Your task to perform on an android device: move a message to another label in the gmail app Image 0: 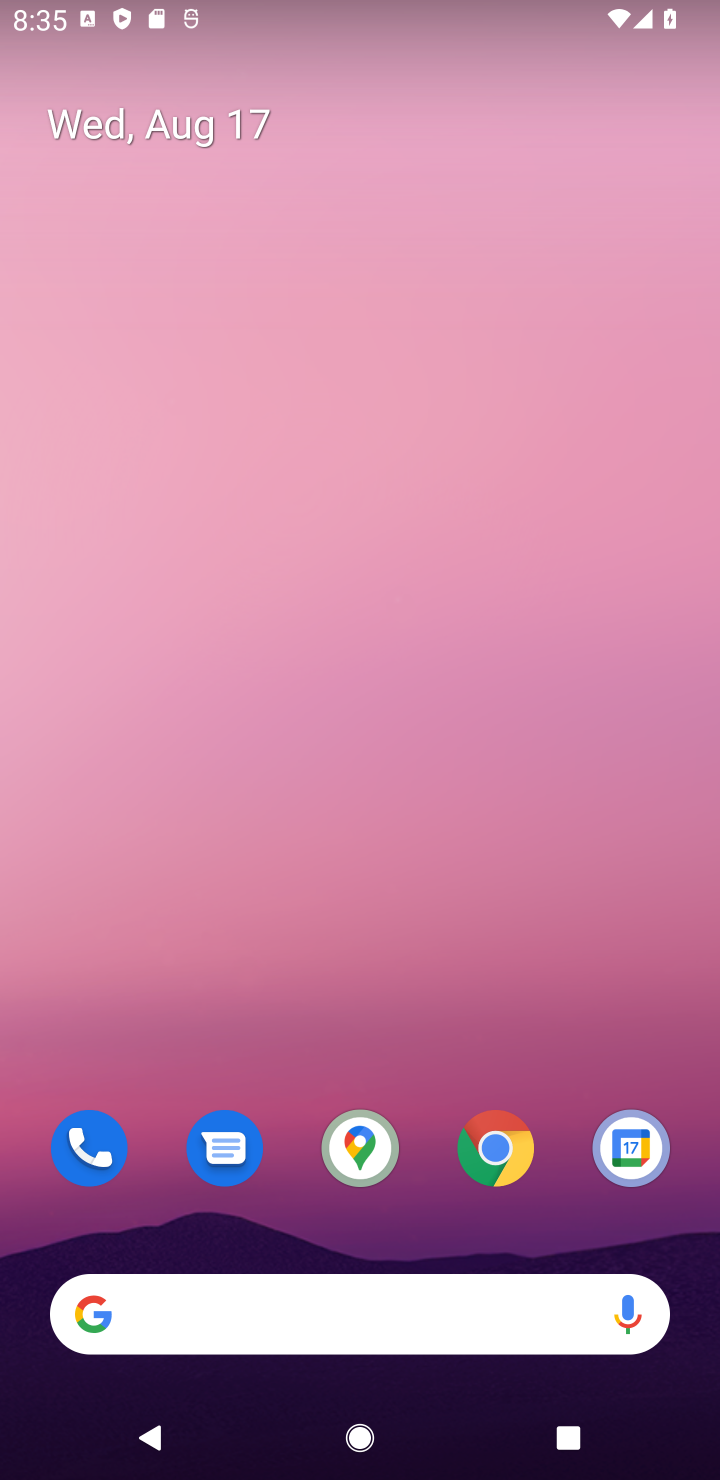
Step 0: drag from (571, 1171) to (540, 184)
Your task to perform on an android device: move a message to another label in the gmail app Image 1: 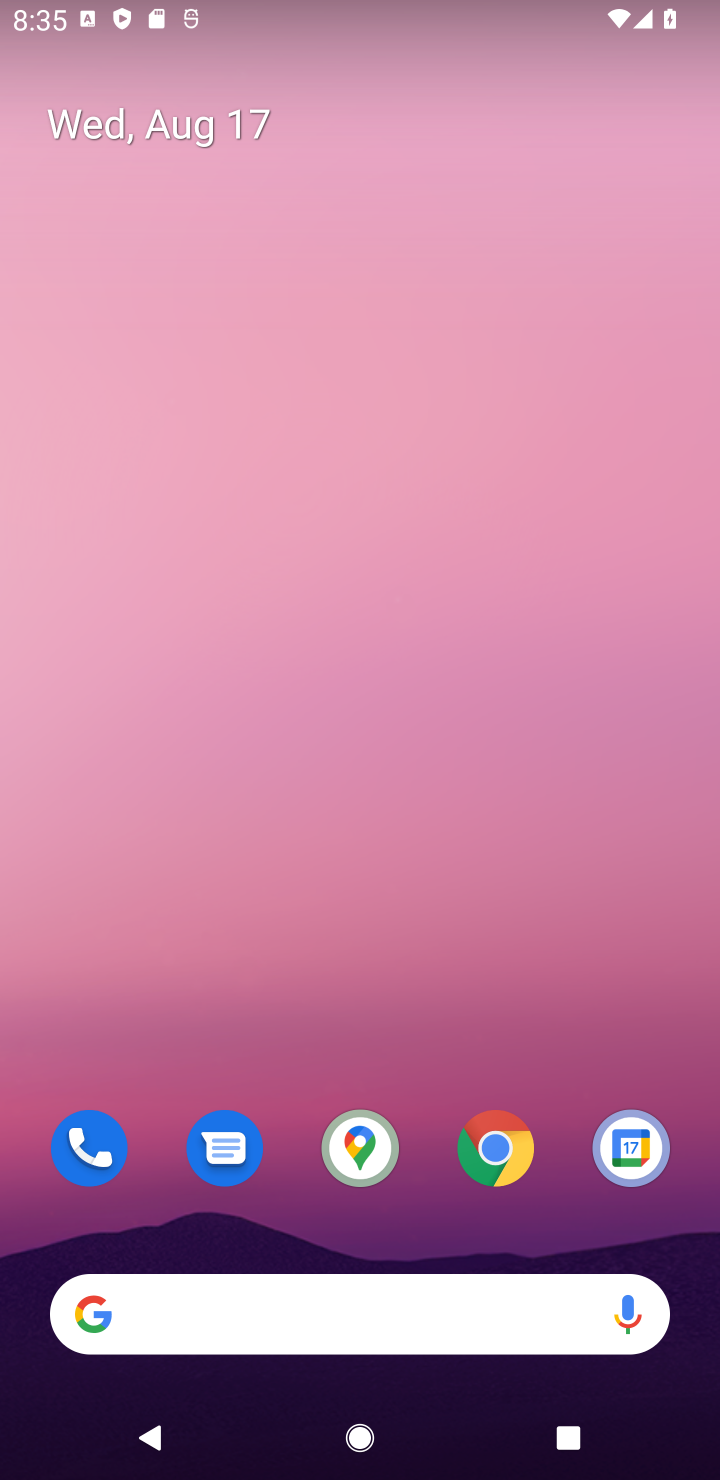
Step 1: drag from (571, 1220) to (530, 192)
Your task to perform on an android device: move a message to another label in the gmail app Image 2: 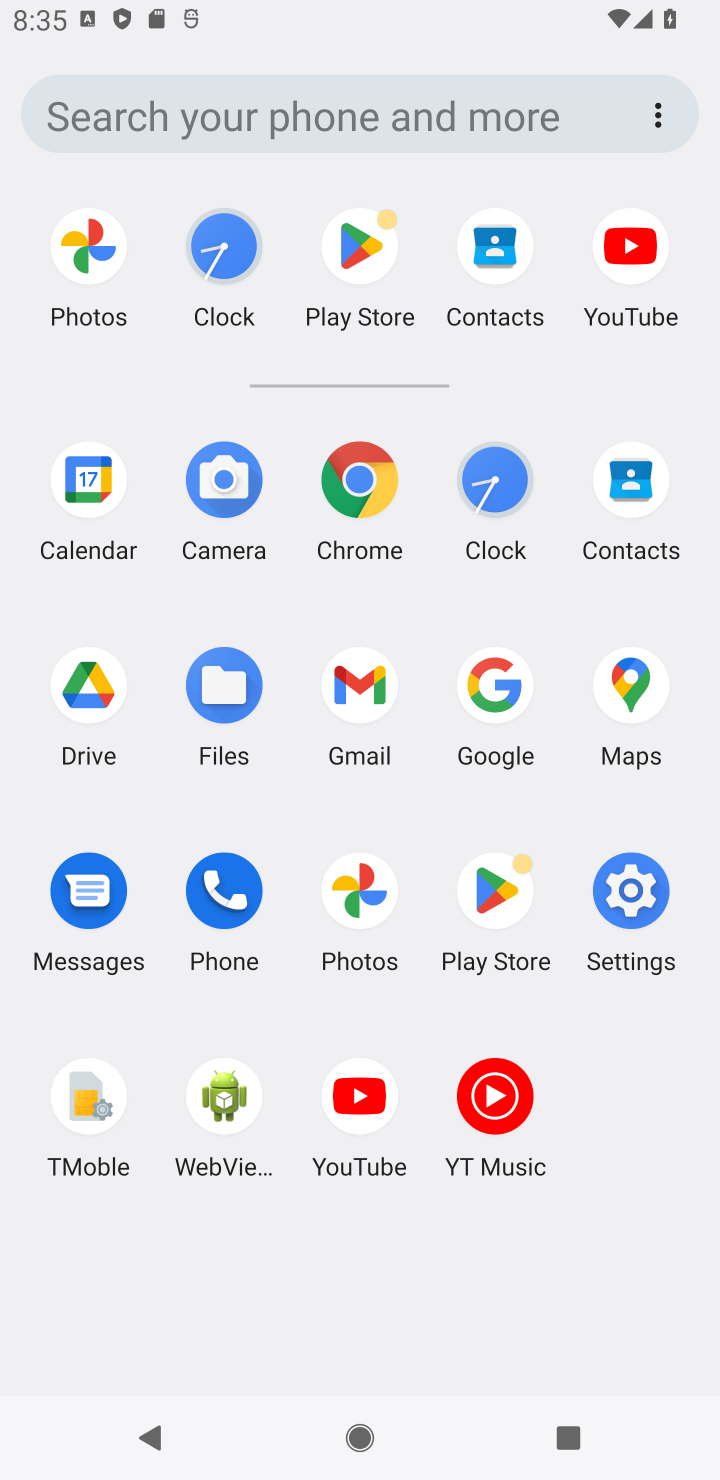
Step 2: click (360, 685)
Your task to perform on an android device: move a message to another label in the gmail app Image 3: 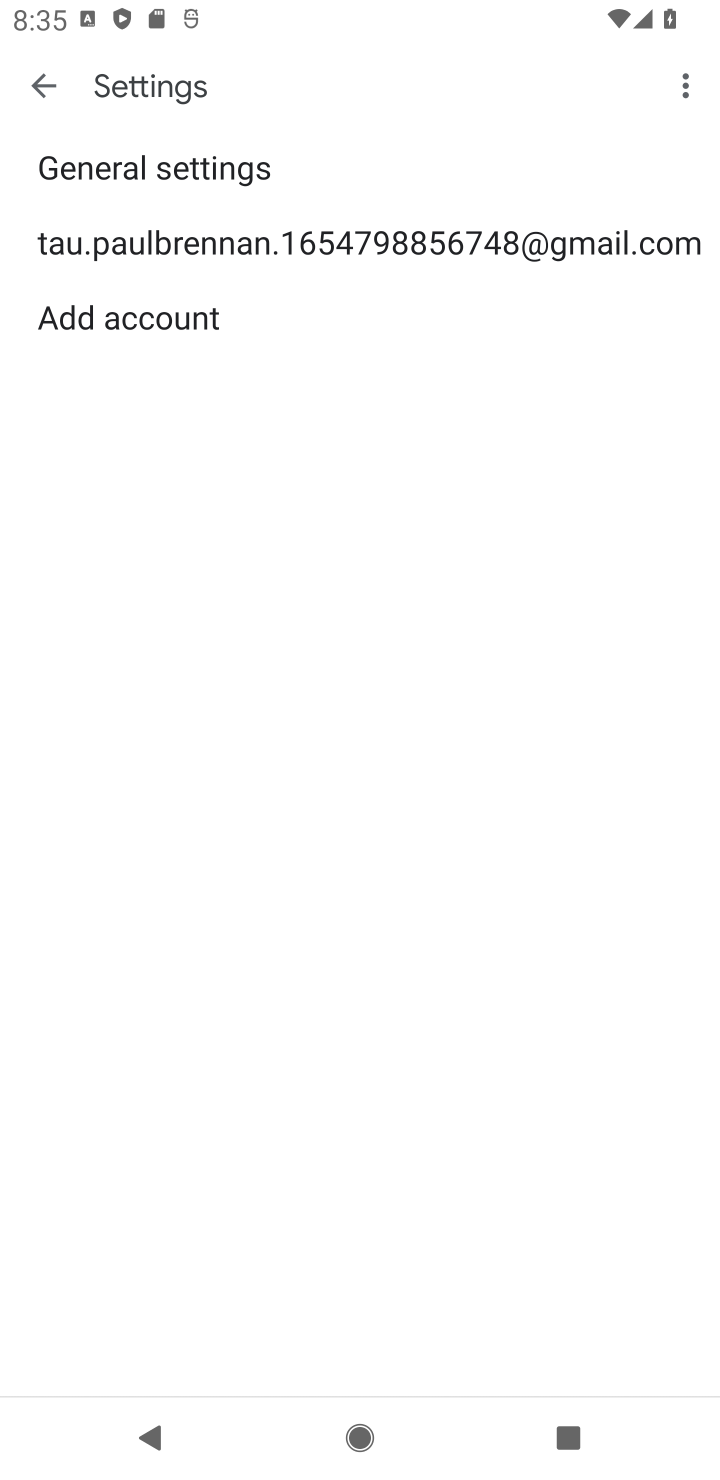
Step 3: press back button
Your task to perform on an android device: move a message to another label in the gmail app Image 4: 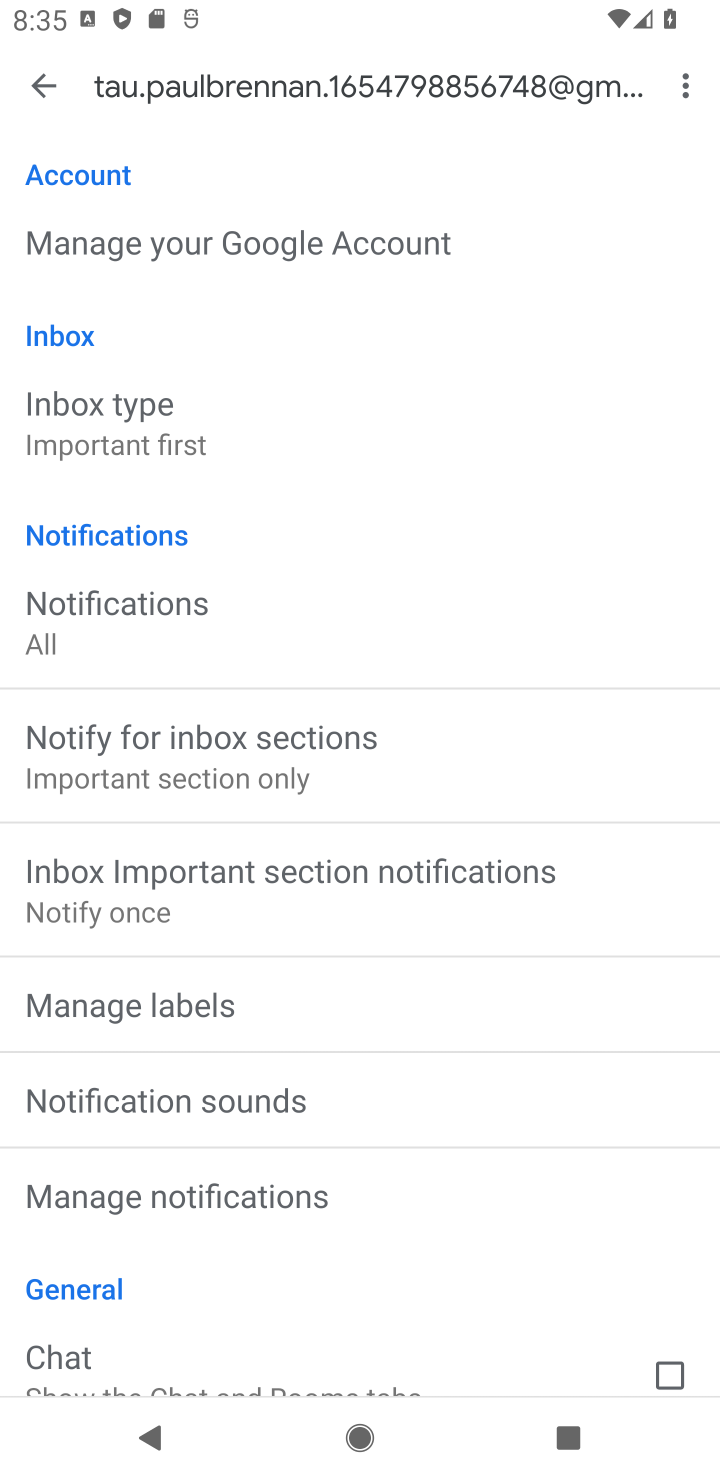
Step 4: press back button
Your task to perform on an android device: move a message to another label in the gmail app Image 5: 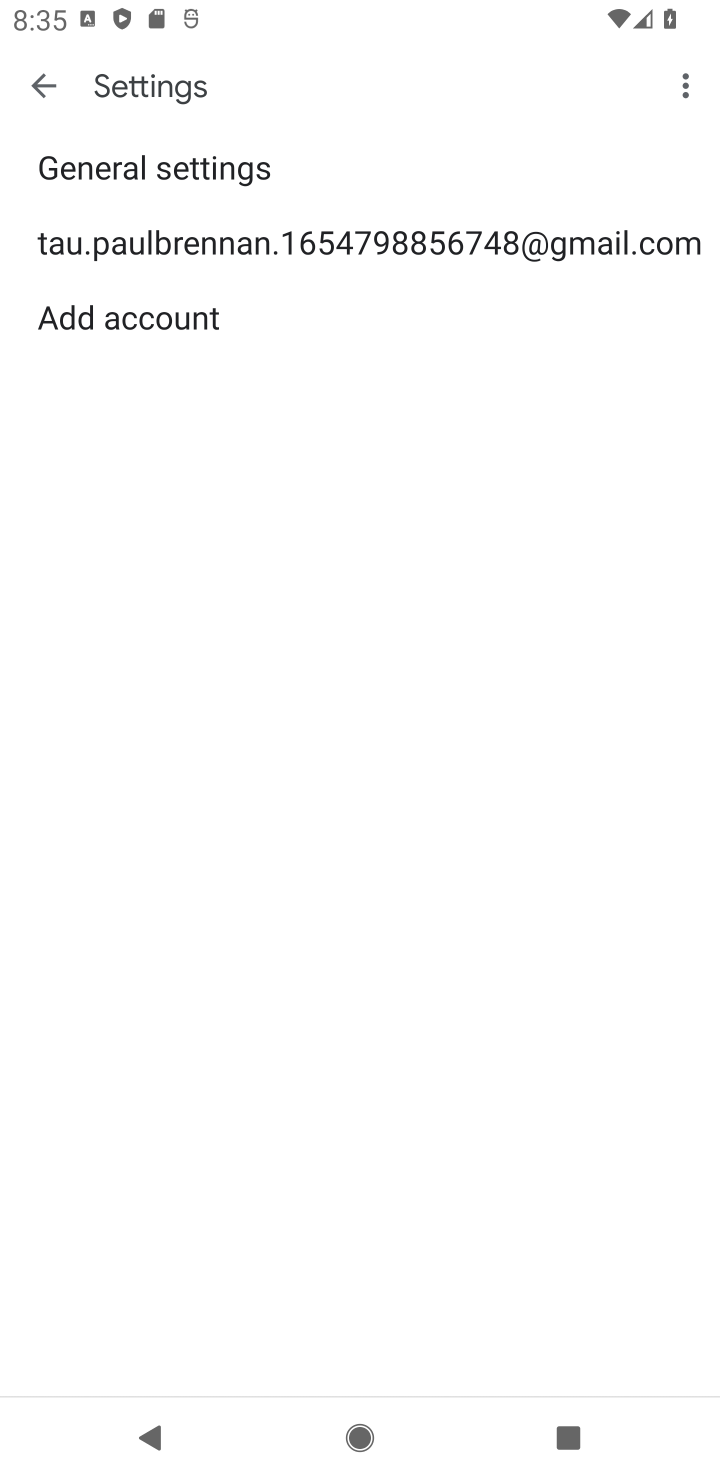
Step 5: press back button
Your task to perform on an android device: move a message to another label in the gmail app Image 6: 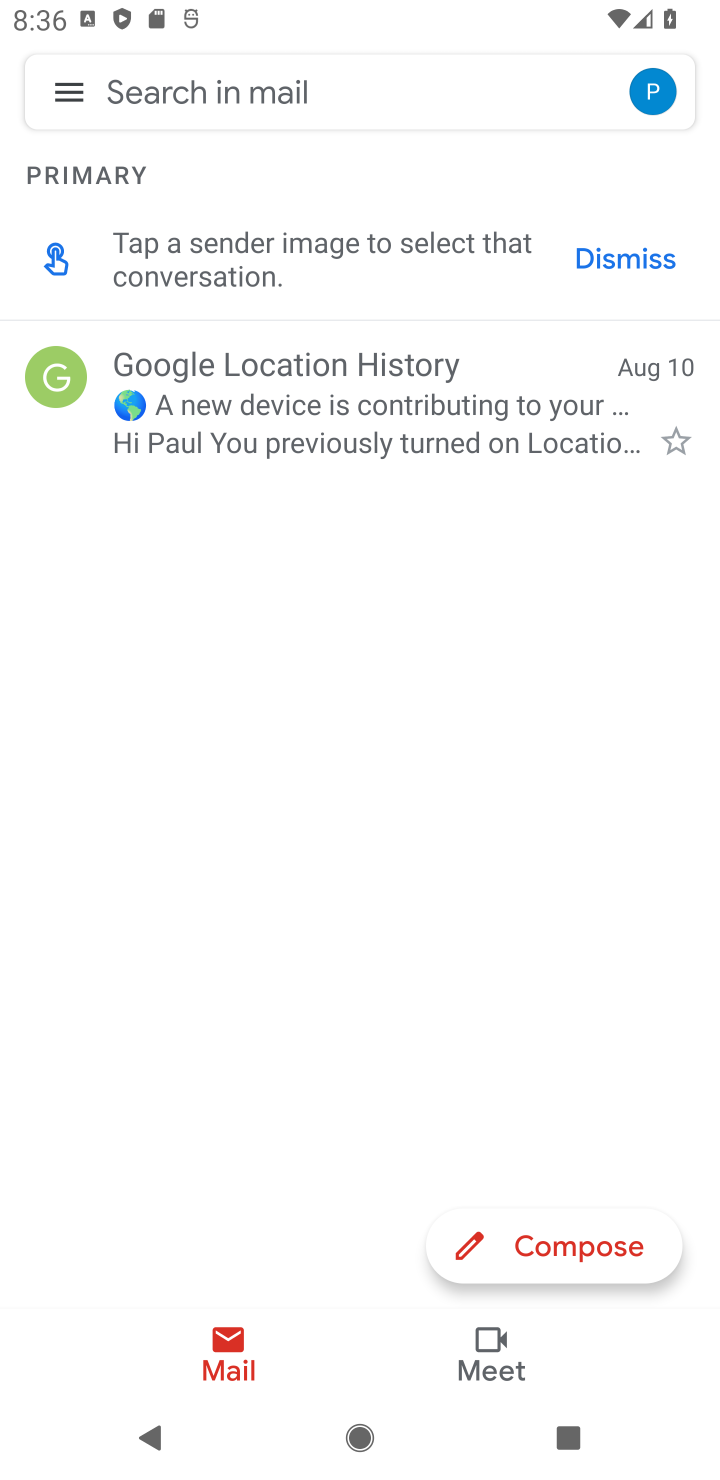
Step 6: click (61, 87)
Your task to perform on an android device: move a message to another label in the gmail app Image 7: 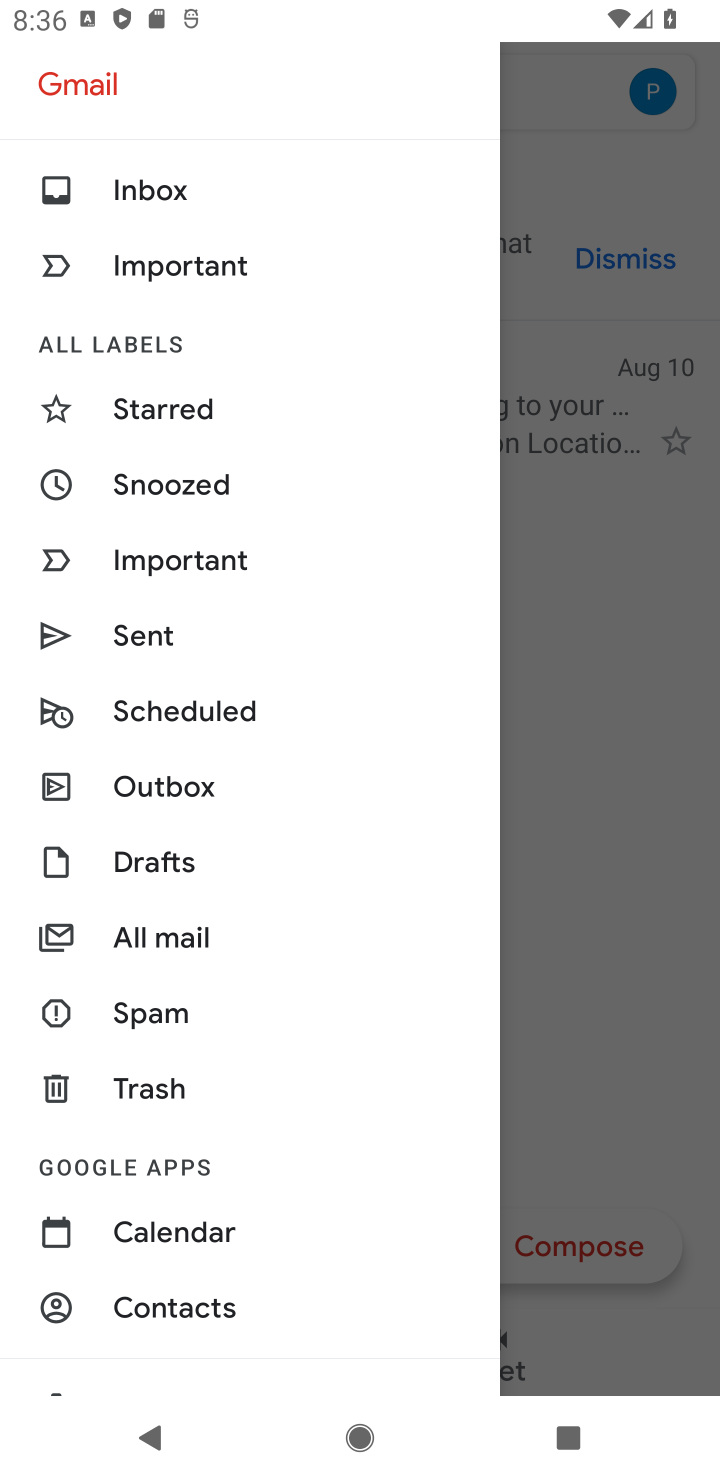
Step 7: click (165, 936)
Your task to perform on an android device: move a message to another label in the gmail app Image 8: 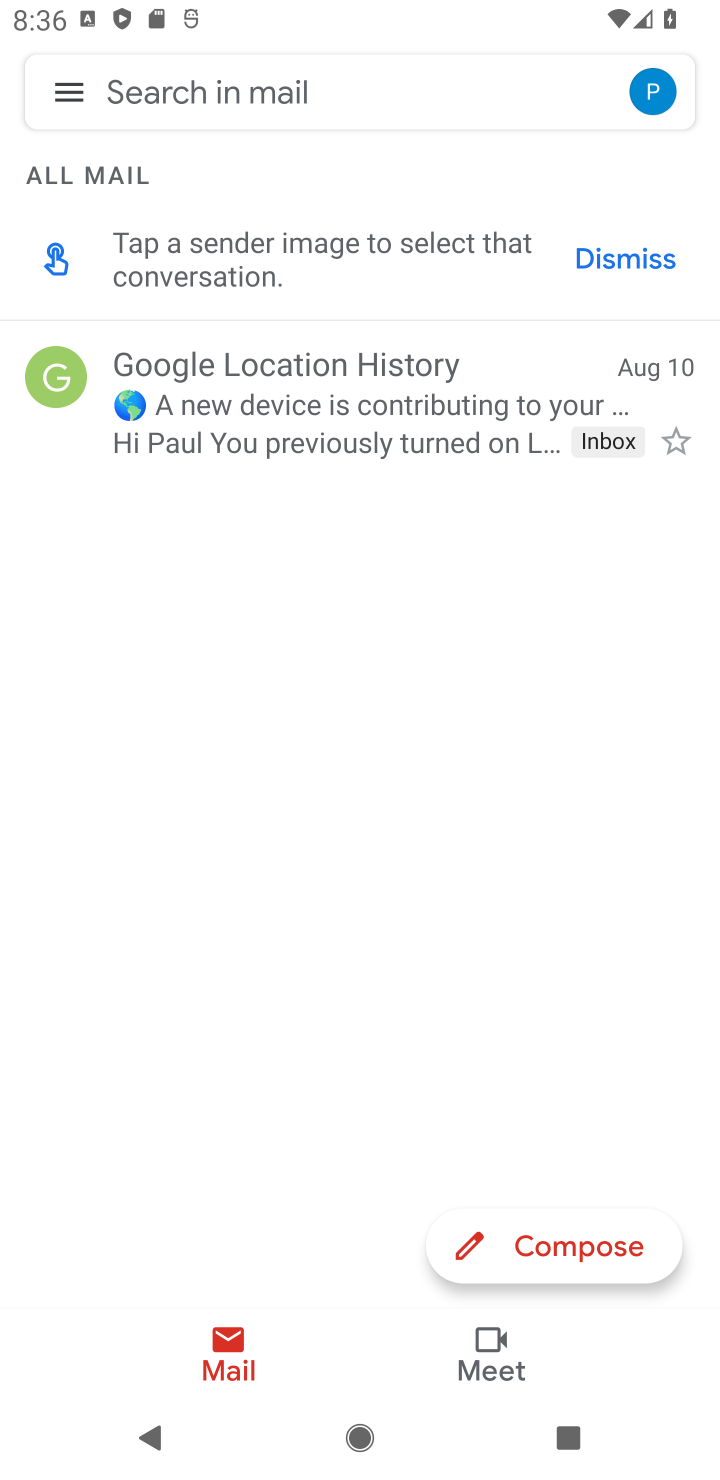
Step 8: click (372, 381)
Your task to perform on an android device: move a message to another label in the gmail app Image 9: 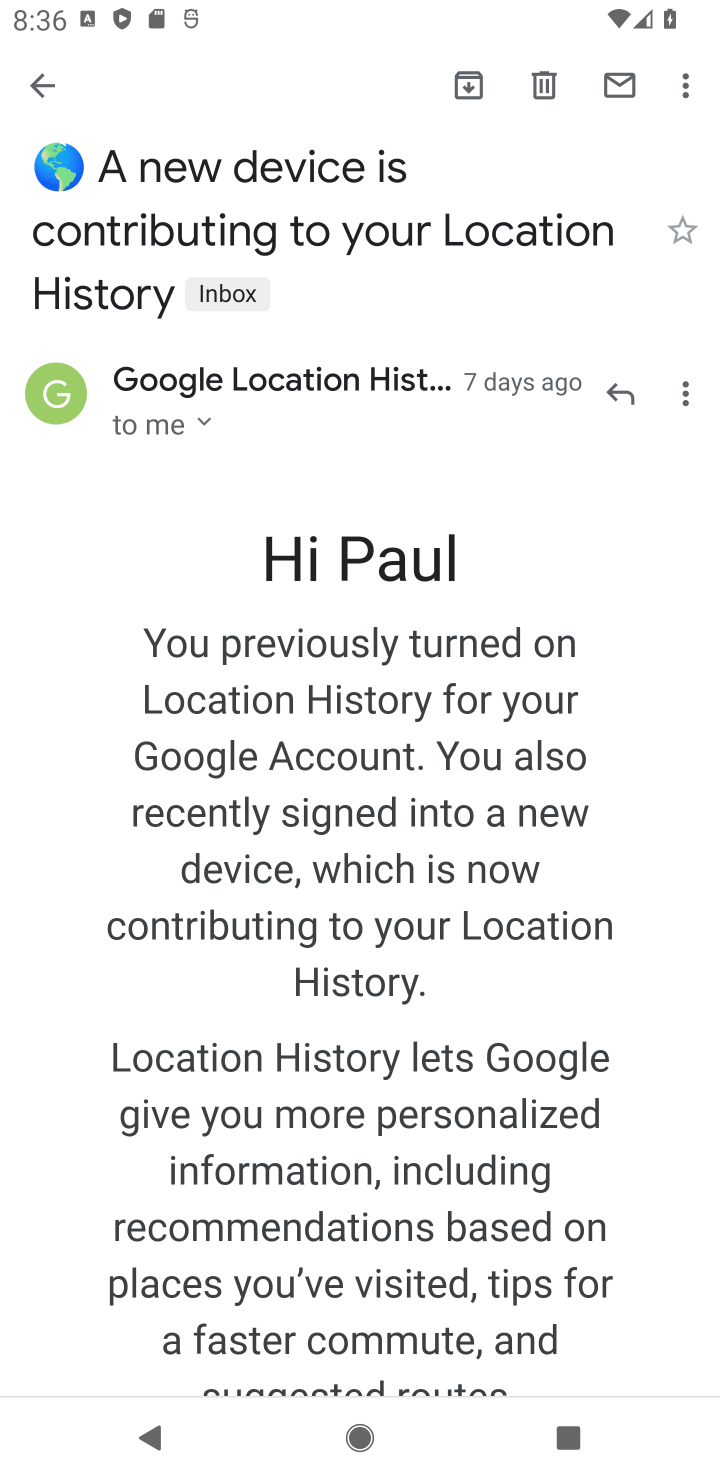
Step 9: click (679, 87)
Your task to perform on an android device: move a message to another label in the gmail app Image 10: 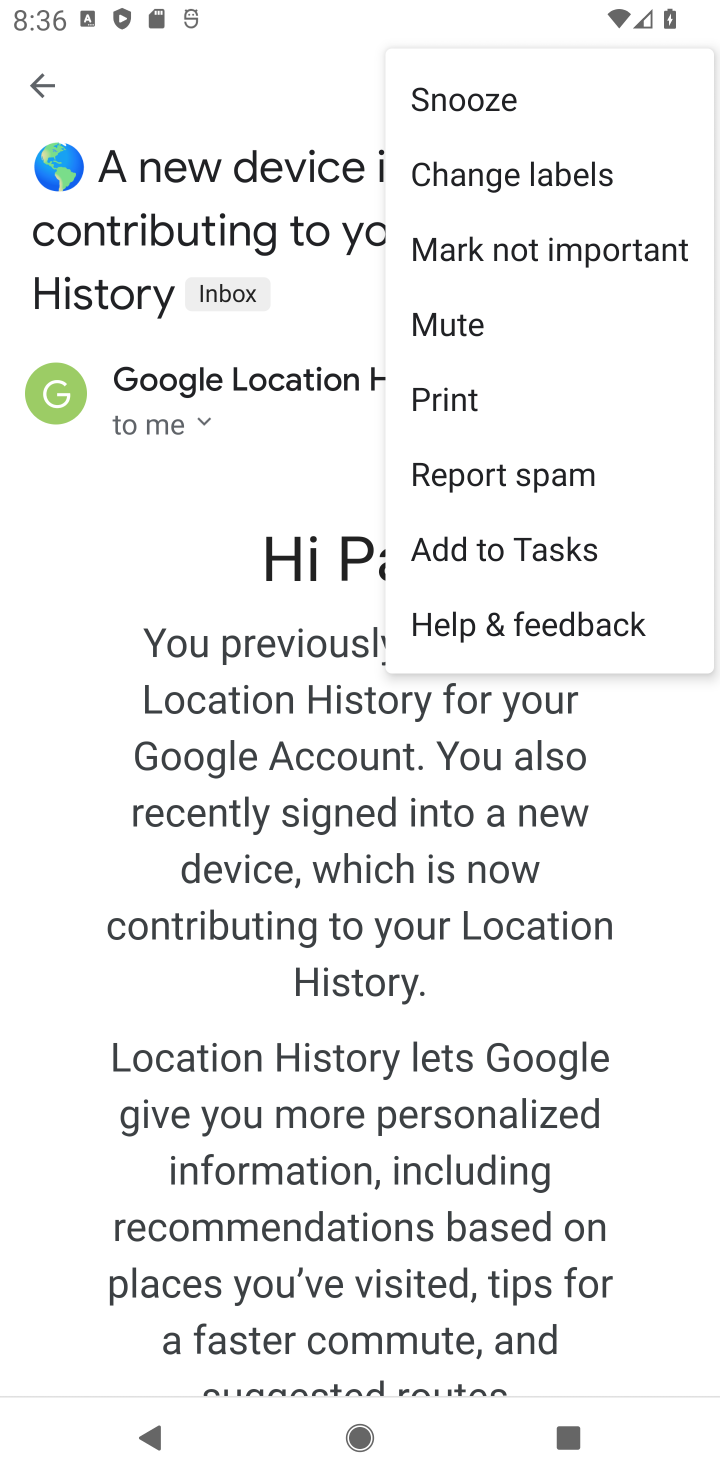
Step 10: task complete